Your task to perform on an android device: Open Yahoo.com Image 0: 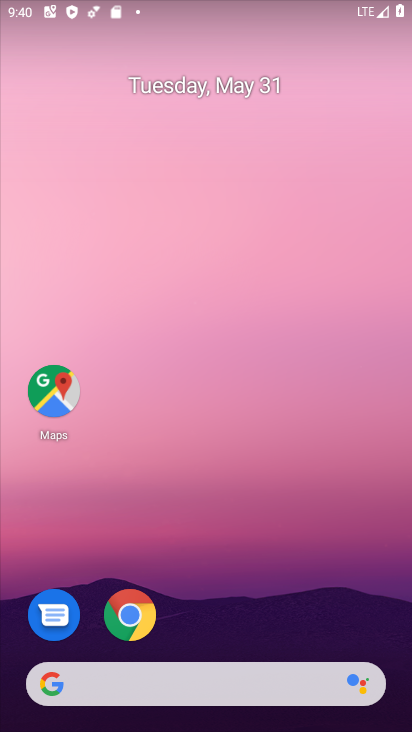
Step 0: drag from (325, 572) to (308, 22)
Your task to perform on an android device: Open Yahoo.com Image 1: 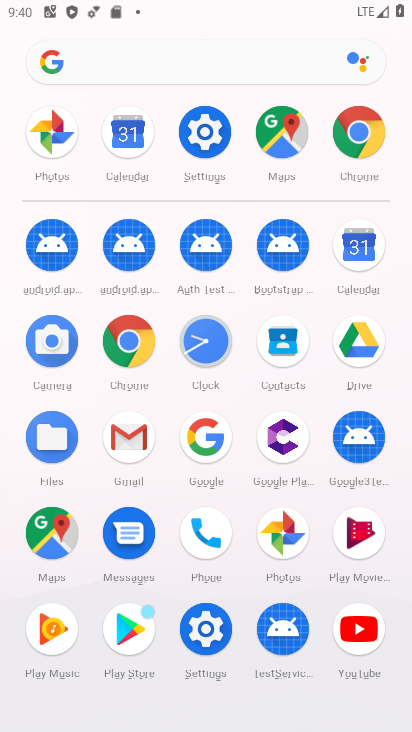
Step 1: click (381, 127)
Your task to perform on an android device: Open Yahoo.com Image 2: 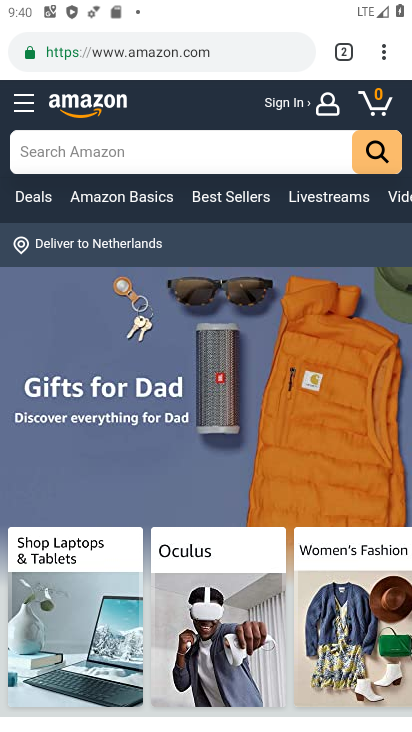
Step 2: click (221, 38)
Your task to perform on an android device: Open Yahoo.com Image 3: 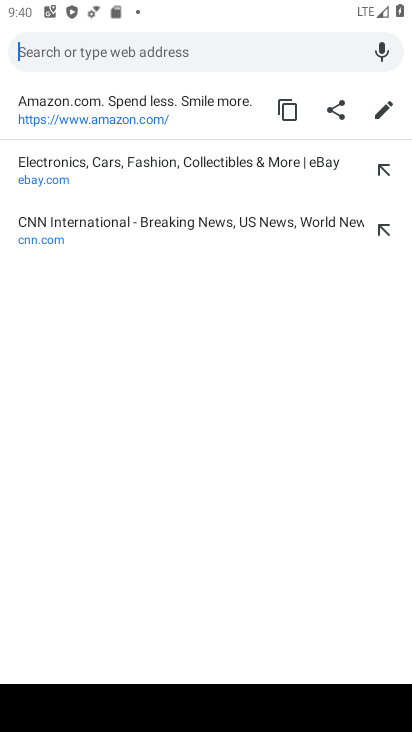
Step 3: type "yahoo"
Your task to perform on an android device: Open Yahoo.com Image 4: 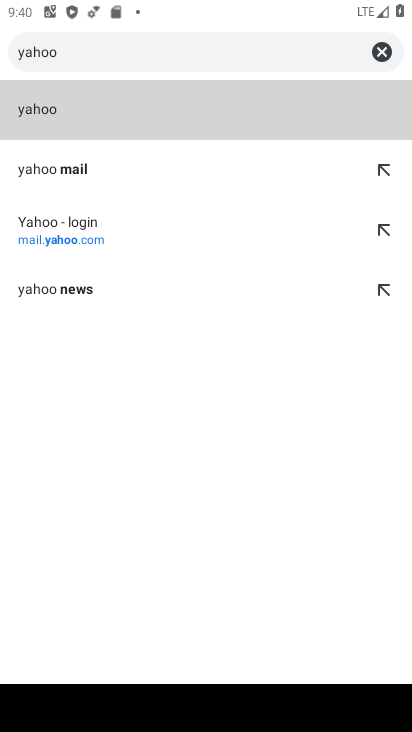
Step 4: click (96, 229)
Your task to perform on an android device: Open Yahoo.com Image 5: 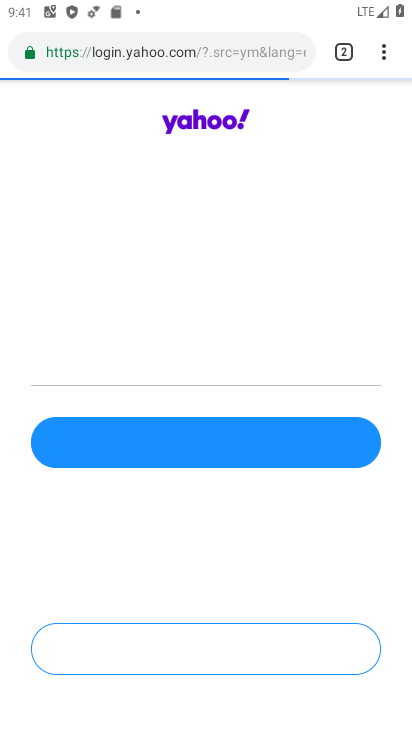
Step 5: task complete